Your task to perform on an android device: Go to eBay Image 0: 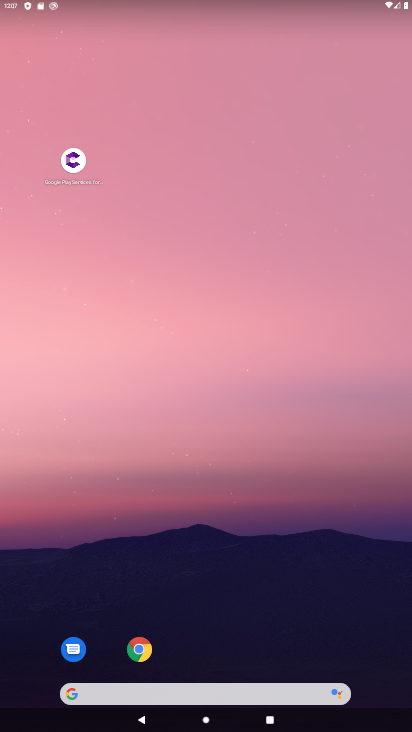
Step 0: drag from (187, 649) to (177, 189)
Your task to perform on an android device: Go to eBay Image 1: 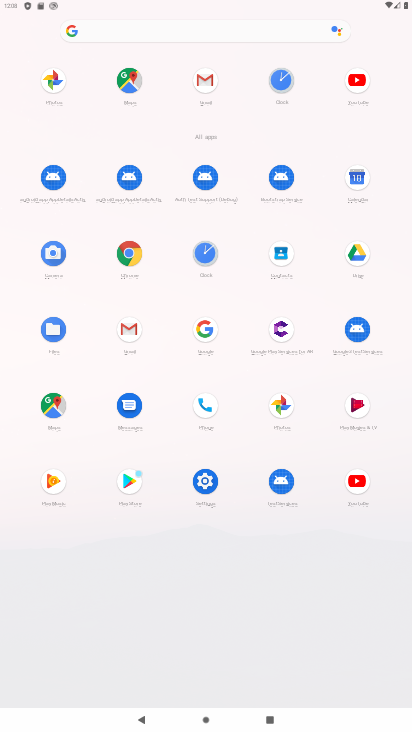
Step 1: click (122, 266)
Your task to perform on an android device: Go to eBay Image 2: 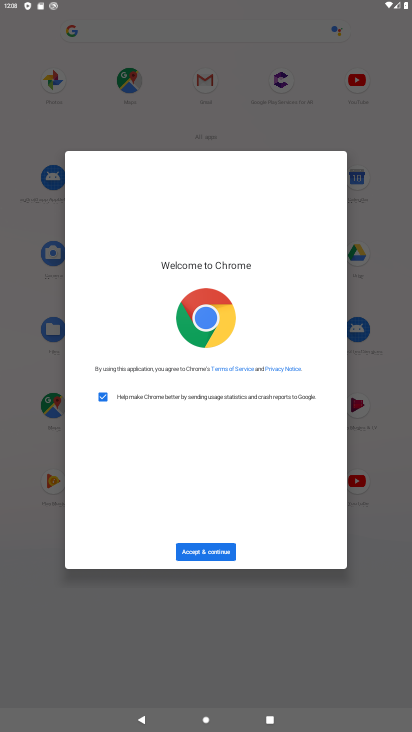
Step 2: click (196, 546)
Your task to perform on an android device: Go to eBay Image 3: 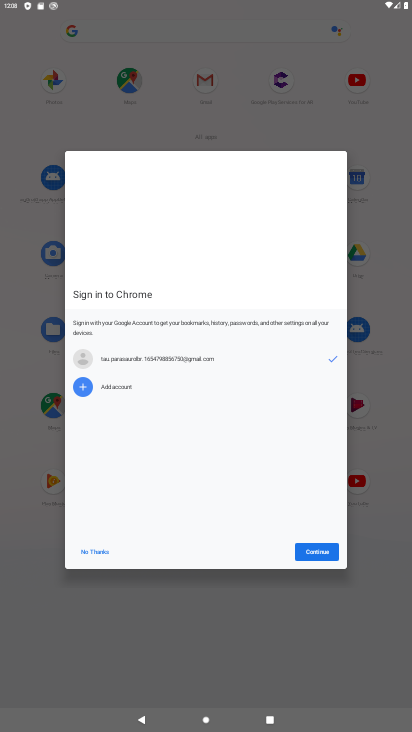
Step 3: click (312, 546)
Your task to perform on an android device: Go to eBay Image 4: 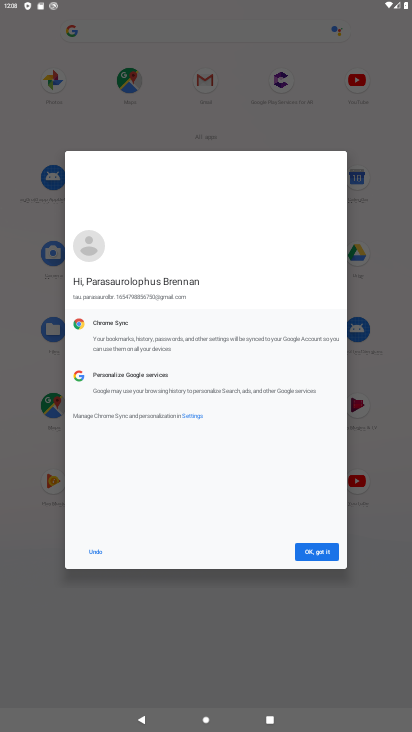
Step 4: click (312, 546)
Your task to perform on an android device: Go to eBay Image 5: 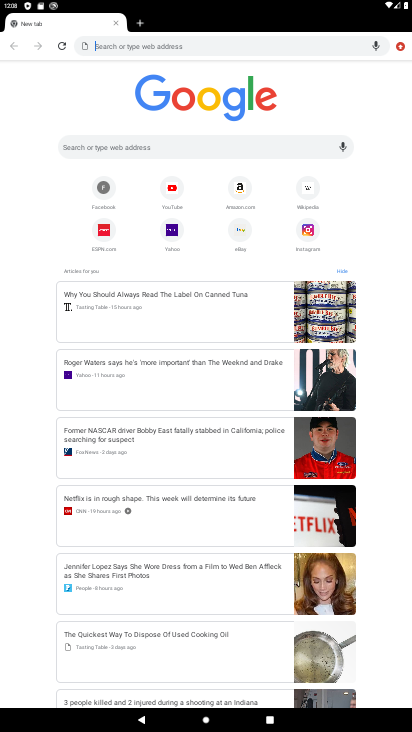
Step 5: click (239, 236)
Your task to perform on an android device: Go to eBay Image 6: 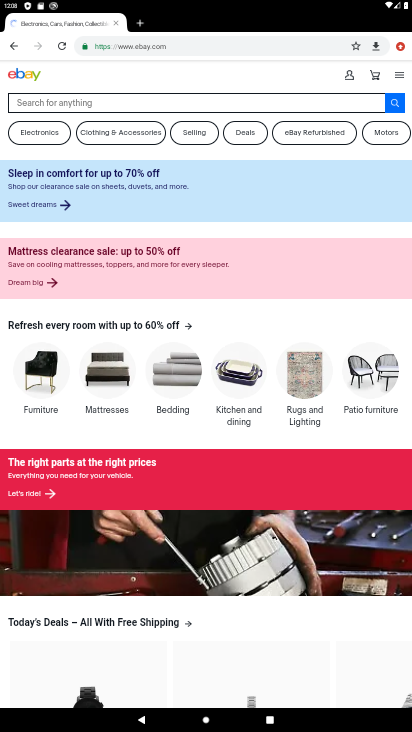
Step 6: task complete